Your task to perform on an android device: Open my contact list Image 0: 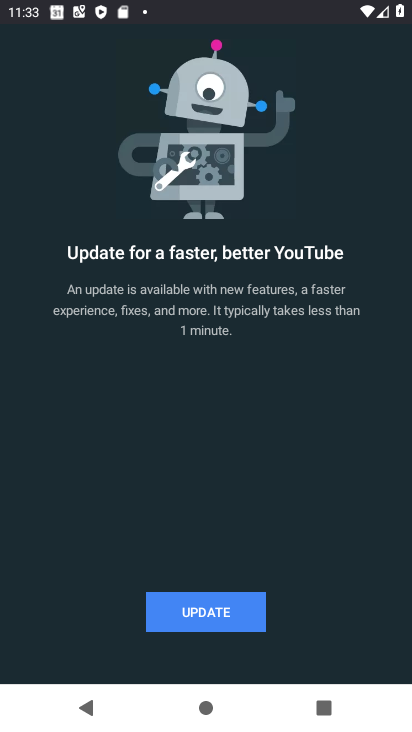
Step 0: press back button
Your task to perform on an android device: Open my contact list Image 1: 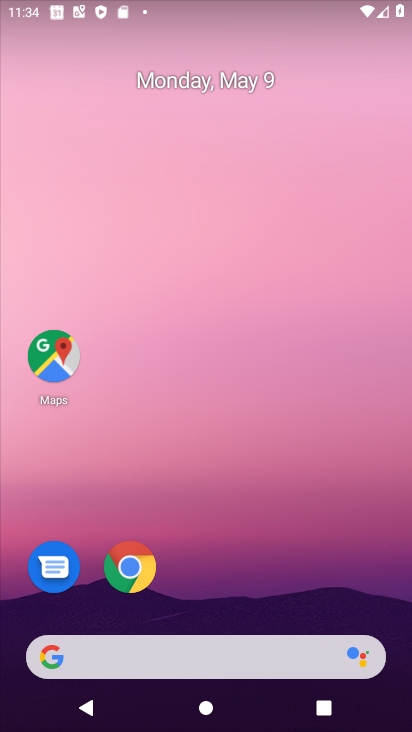
Step 1: drag from (389, 611) to (250, 11)
Your task to perform on an android device: Open my contact list Image 2: 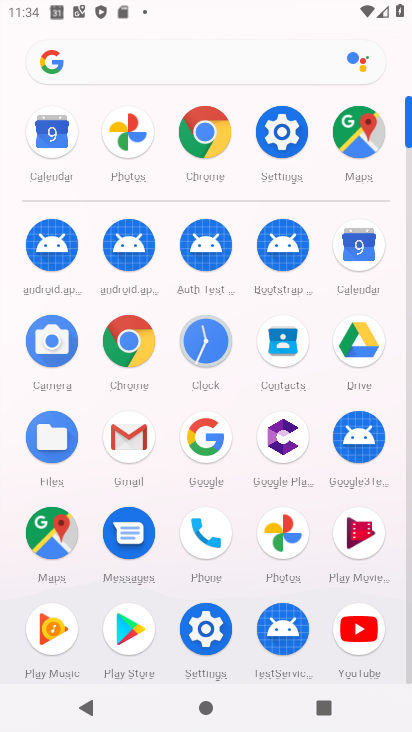
Step 2: click (296, 351)
Your task to perform on an android device: Open my contact list Image 3: 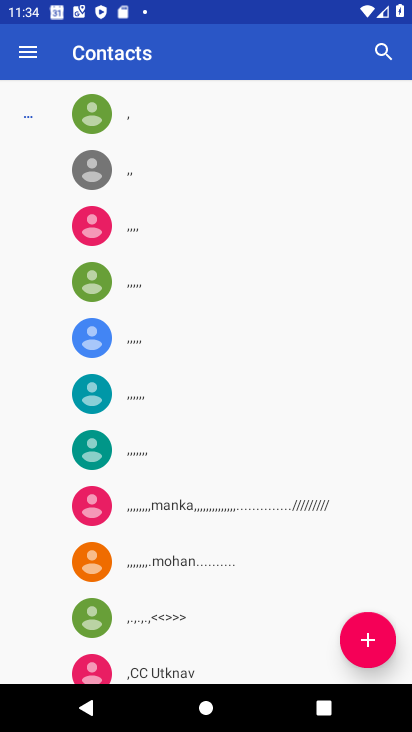
Step 3: task complete